Your task to perform on an android device: Open Android settings Image 0: 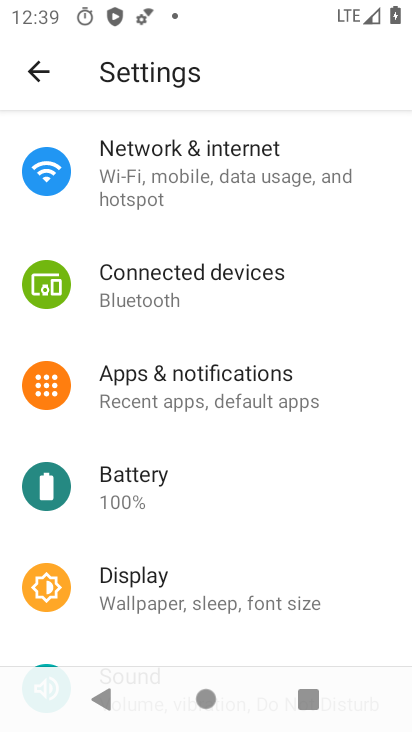
Step 0: drag from (211, 626) to (212, 215)
Your task to perform on an android device: Open Android settings Image 1: 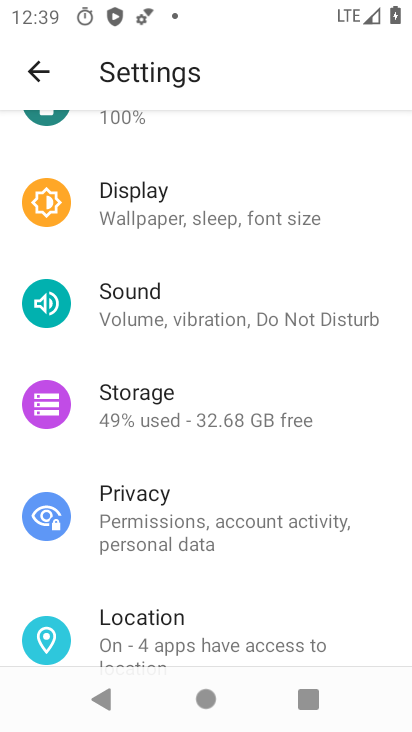
Step 1: task complete